Your task to perform on an android device: Open Maps and search for coffee Image 0: 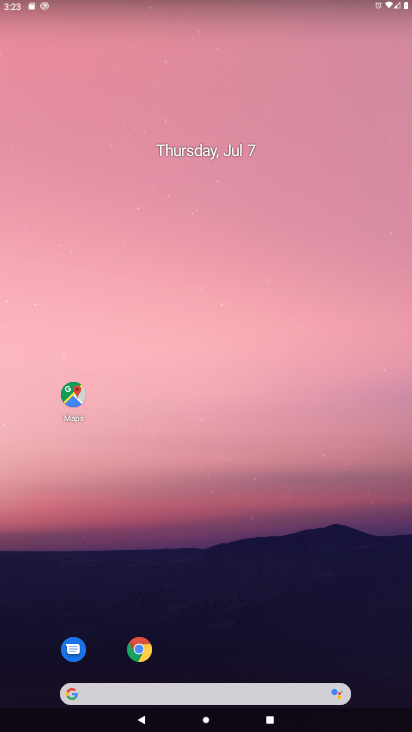
Step 0: click (65, 385)
Your task to perform on an android device: Open Maps and search for coffee Image 1: 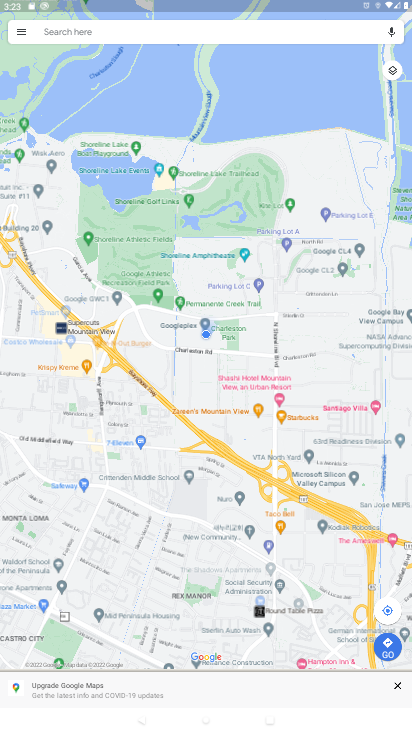
Step 1: click (130, 33)
Your task to perform on an android device: Open Maps and search for coffee Image 2: 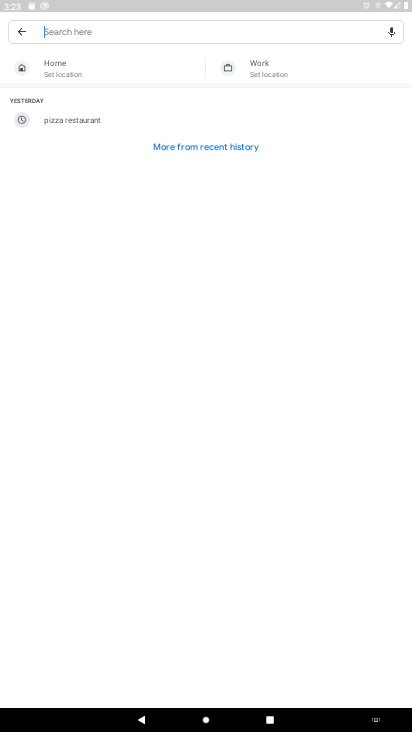
Step 2: type "coffee"
Your task to perform on an android device: Open Maps and search for coffee Image 3: 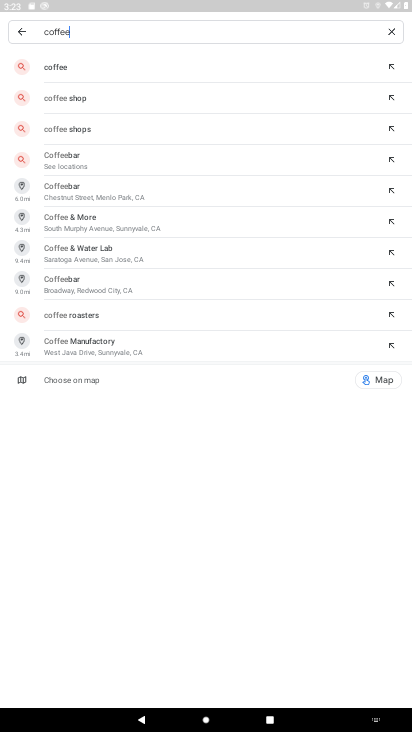
Step 3: click (82, 63)
Your task to perform on an android device: Open Maps and search for coffee Image 4: 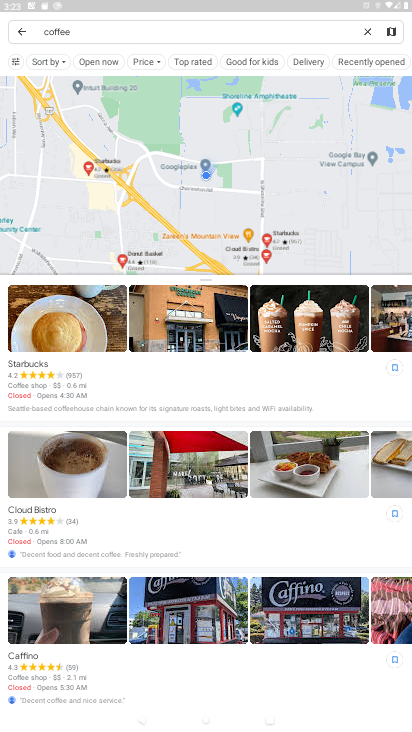
Step 4: task complete